Your task to perform on an android device: turn vacation reply on in the gmail app Image 0: 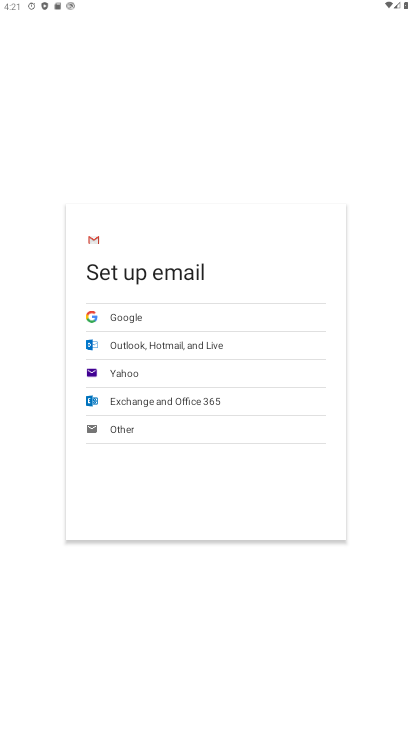
Step 0: press back button
Your task to perform on an android device: turn vacation reply on in the gmail app Image 1: 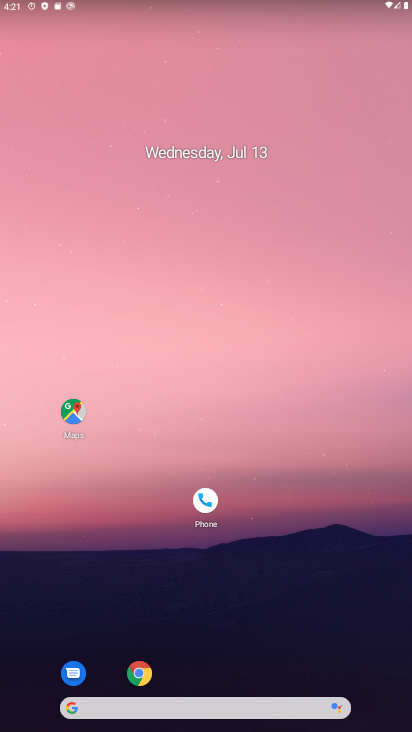
Step 1: drag from (306, 664) to (141, 161)
Your task to perform on an android device: turn vacation reply on in the gmail app Image 2: 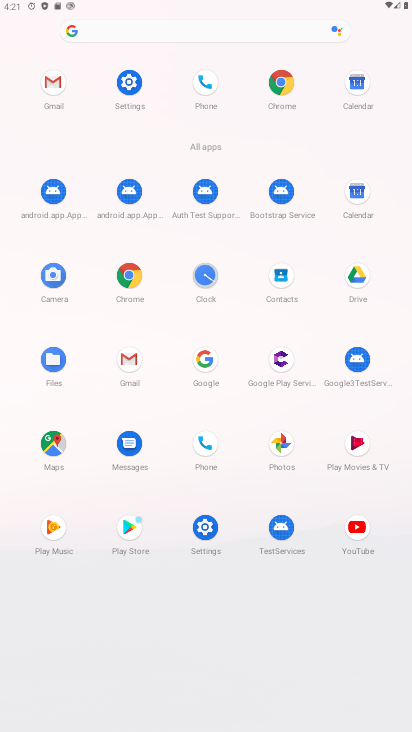
Step 2: click (127, 349)
Your task to perform on an android device: turn vacation reply on in the gmail app Image 3: 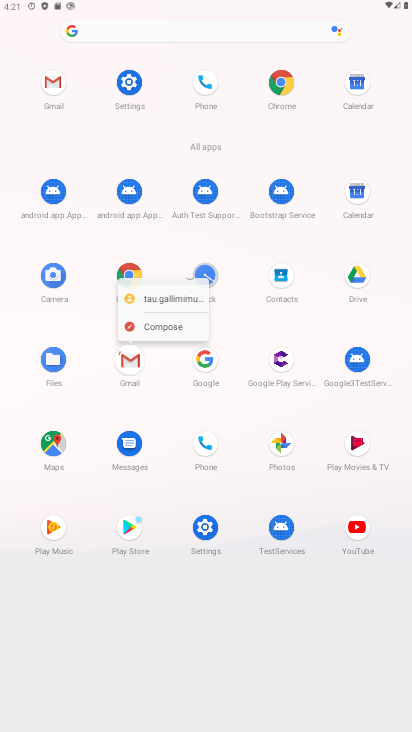
Step 3: click (127, 350)
Your task to perform on an android device: turn vacation reply on in the gmail app Image 4: 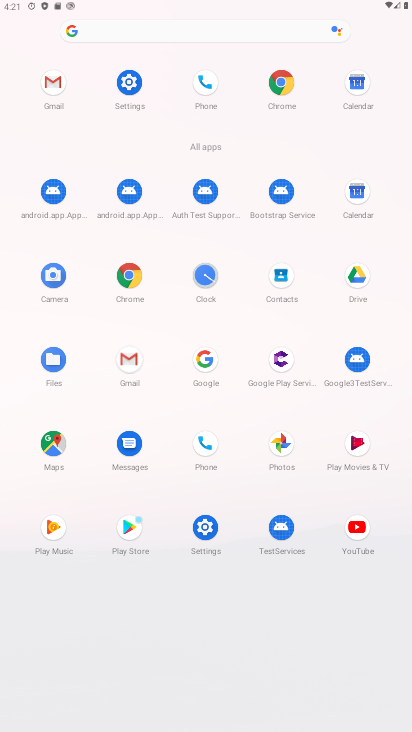
Step 4: click (129, 353)
Your task to perform on an android device: turn vacation reply on in the gmail app Image 5: 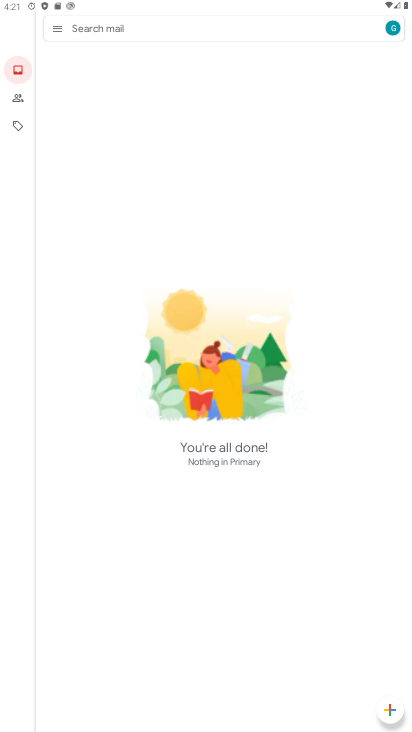
Step 5: click (55, 33)
Your task to perform on an android device: turn vacation reply on in the gmail app Image 6: 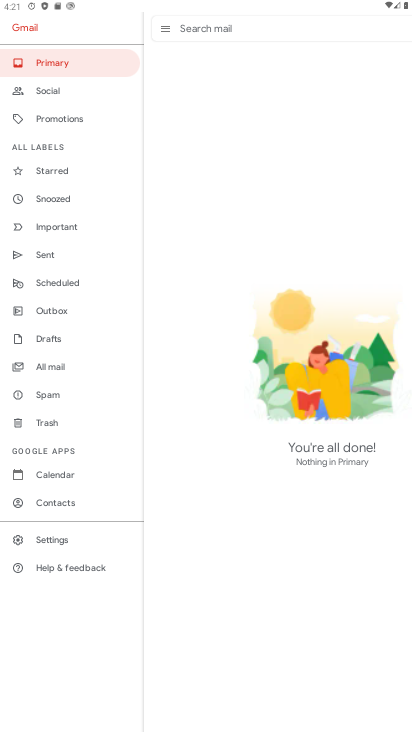
Step 6: click (55, 33)
Your task to perform on an android device: turn vacation reply on in the gmail app Image 7: 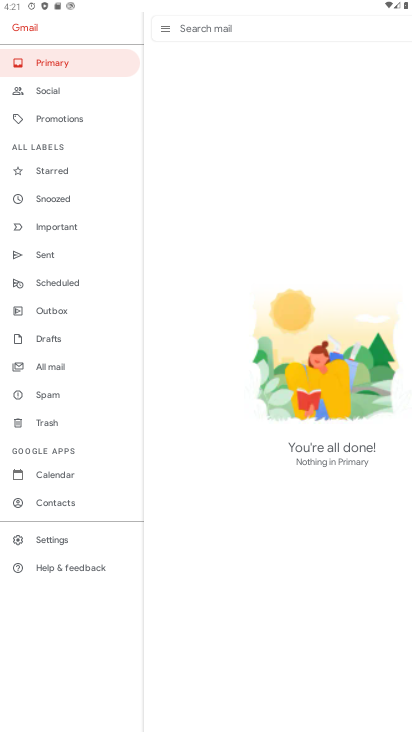
Step 7: click (54, 532)
Your task to perform on an android device: turn vacation reply on in the gmail app Image 8: 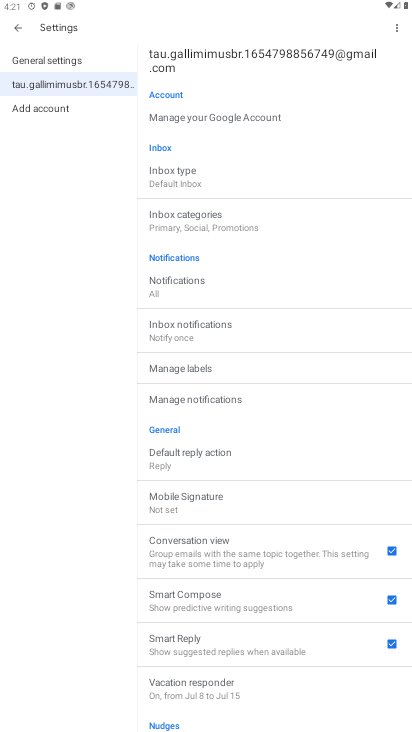
Step 8: click (217, 686)
Your task to perform on an android device: turn vacation reply on in the gmail app Image 9: 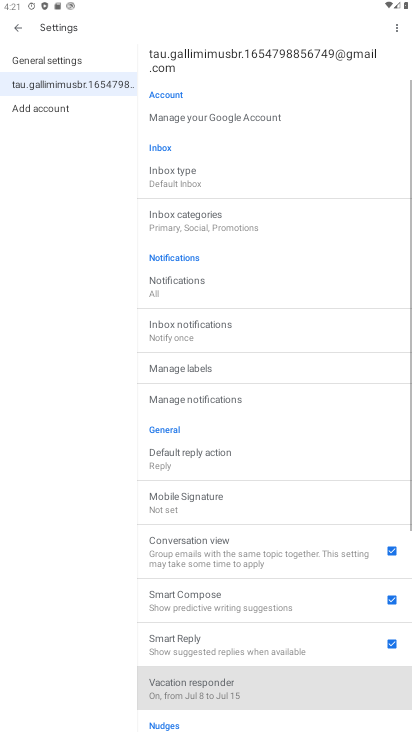
Step 9: click (218, 684)
Your task to perform on an android device: turn vacation reply on in the gmail app Image 10: 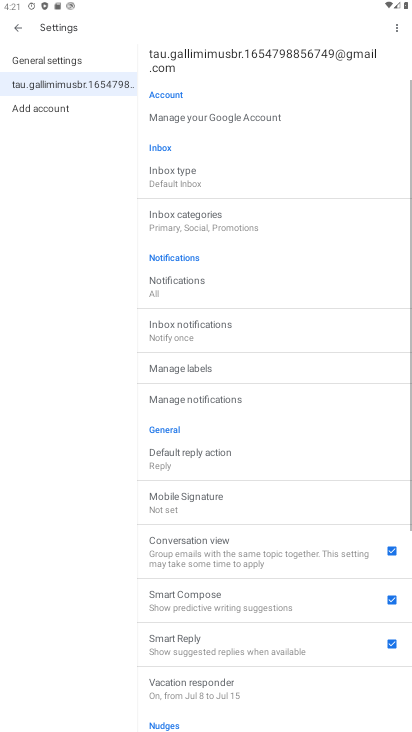
Step 10: click (221, 682)
Your task to perform on an android device: turn vacation reply on in the gmail app Image 11: 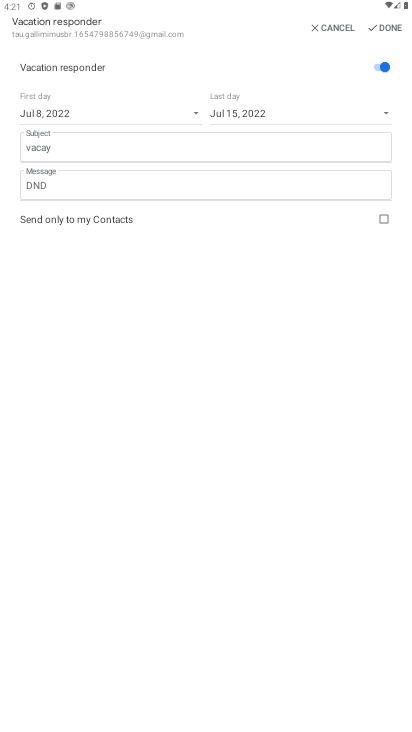
Step 11: task complete